Your task to perform on an android device: move an email to a new category in the gmail app Image 0: 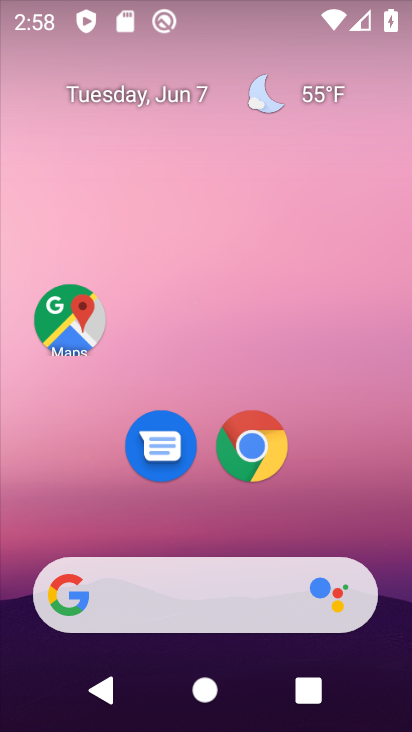
Step 0: drag from (198, 539) to (195, 2)
Your task to perform on an android device: move an email to a new category in the gmail app Image 1: 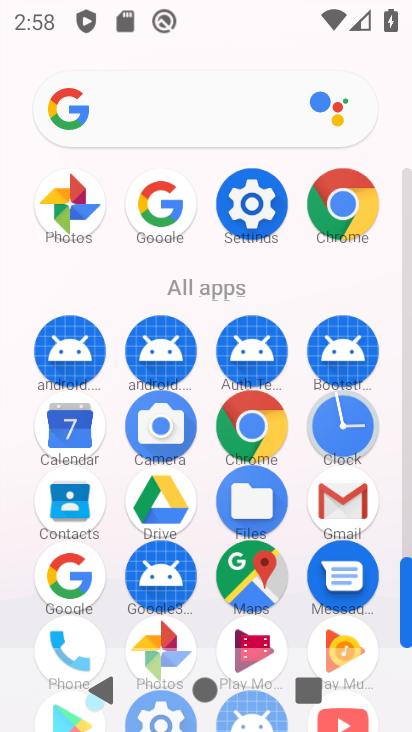
Step 1: click (335, 514)
Your task to perform on an android device: move an email to a new category in the gmail app Image 2: 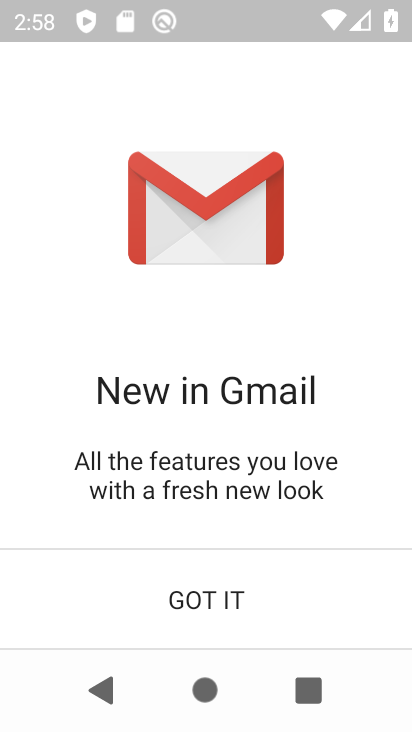
Step 2: click (178, 613)
Your task to perform on an android device: move an email to a new category in the gmail app Image 3: 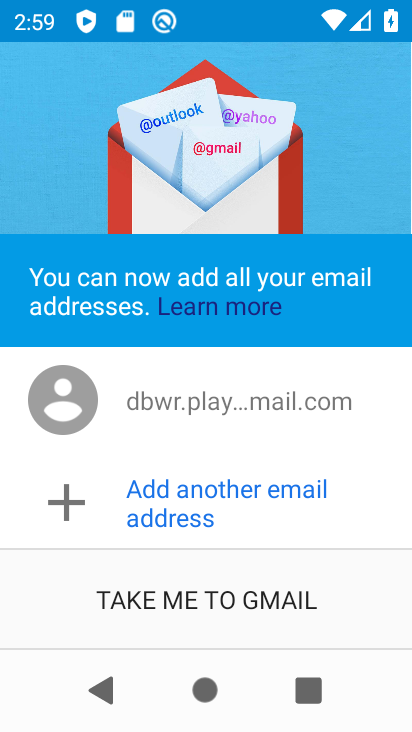
Step 3: click (208, 590)
Your task to perform on an android device: move an email to a new category in the gmail app Image 4: 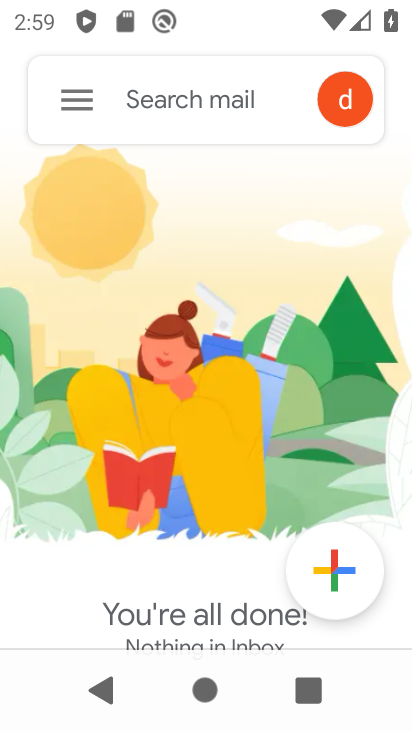
Step 4: task complete